Your task to perform on an android device: turn on showing notifications on the lock screen Image 0: 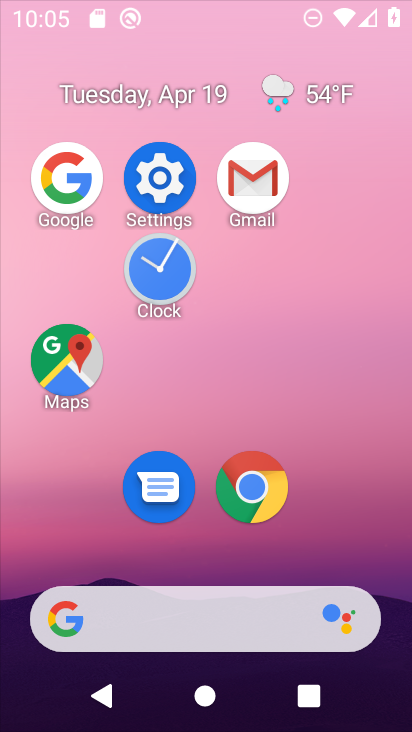
Step 0: click (142, 185)
Your task to perform on an android device: turn on showing notifications on the lock screen Image 1: 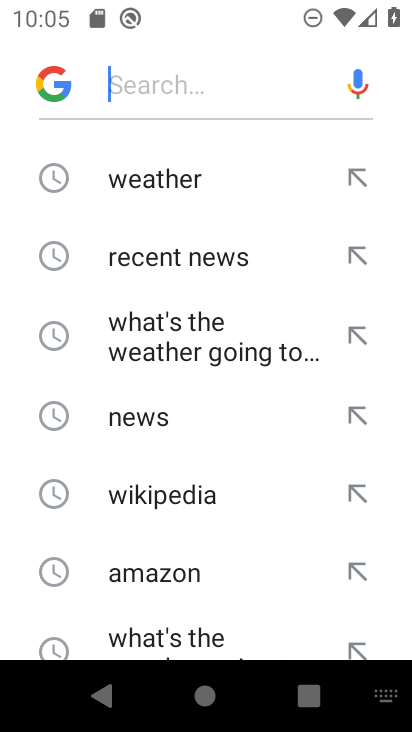
Step 1: press home button
Your task to perform on an android device: turn on showing notifications on the lock screen Image 2: 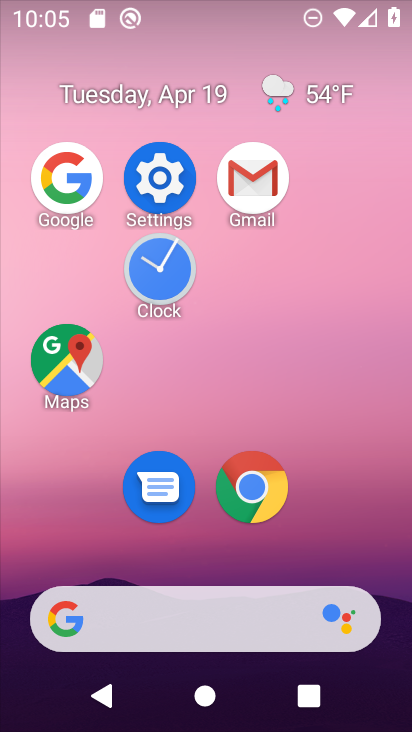
Step 2: click (145, 169)
Your task to perform on an android device: turn on showing notifications on the lock screen Image 3: 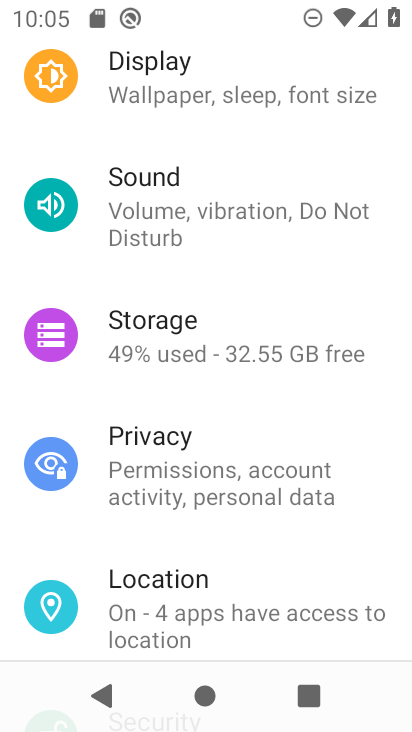
Step 3: drag from (229, 553) to (251, 516)
Your task to perform on an android device: turn on showing notifications on the lock screen Image 4: 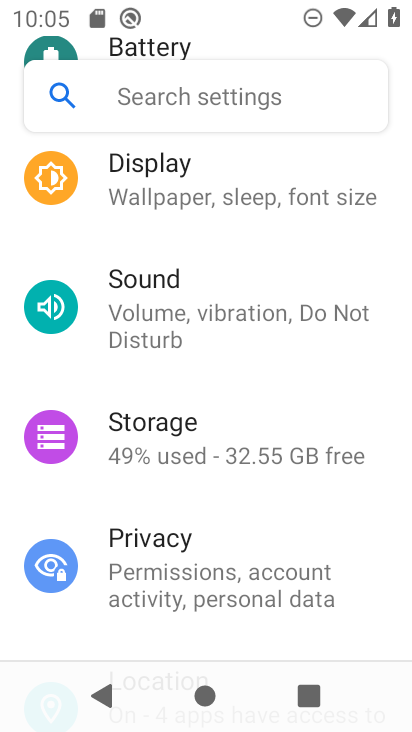
Step 4: drag from (302, 168) to (241, 482)
Your task to perform on an android device: turn on showing notifications on the lock screen Image 5: 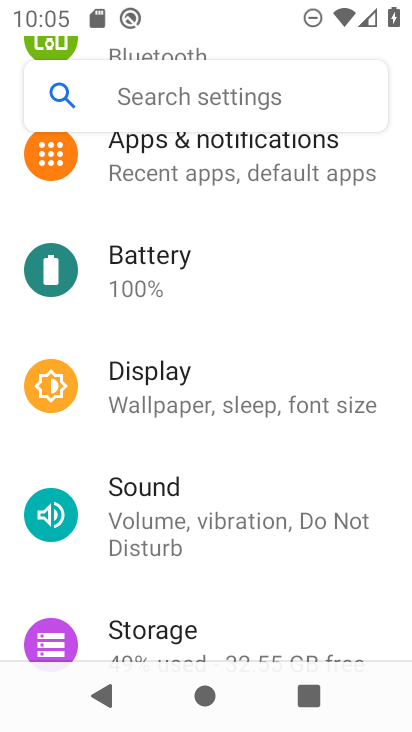
Step 5: click (271, 177)
Your task to perform on an android device: turn on showing notifications on the lock screen Image 6: 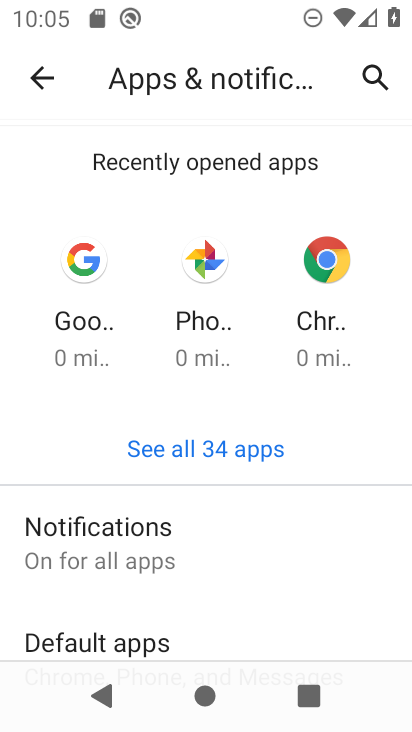
Step 6: click (236, 562)
Your task to perform on an android device: turn on showing notifications on the lock screen Image 7: 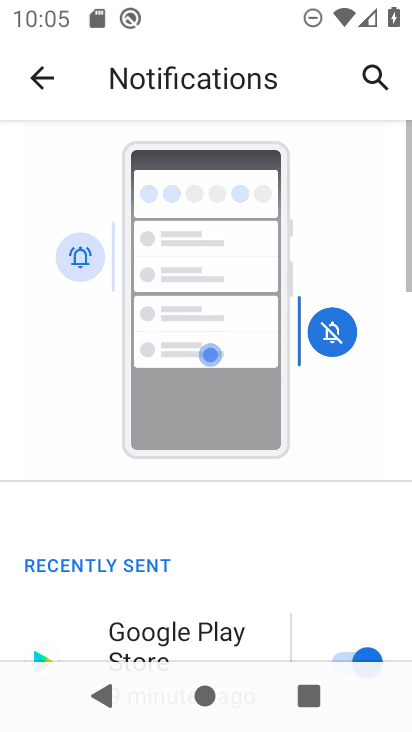
Step 7: drag from (236, 559) to (254, 89)
Your task to perform on an android device: turn on showing notifications on the lock screen Image 8: 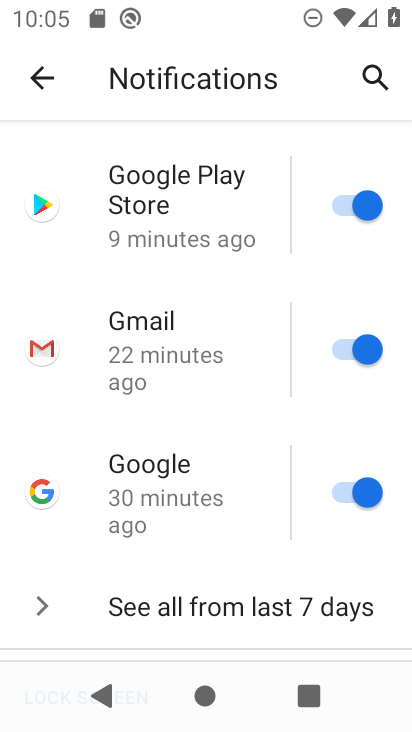
Step 8: drag from (257, 499) to (286, 186)
Your task to perform on an android device: turn on showing notifications on the lock screen Image 9: 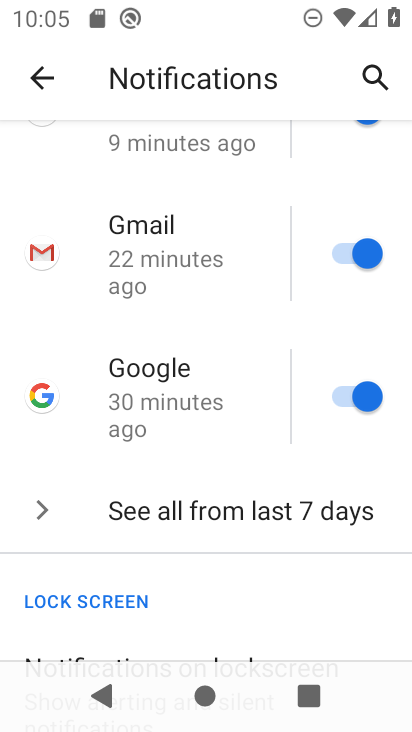
Step 9: drag from (200, 492) to (209, 215)
Your task to perform on an android device: turn on showing notifications on the lock screen Image 10: 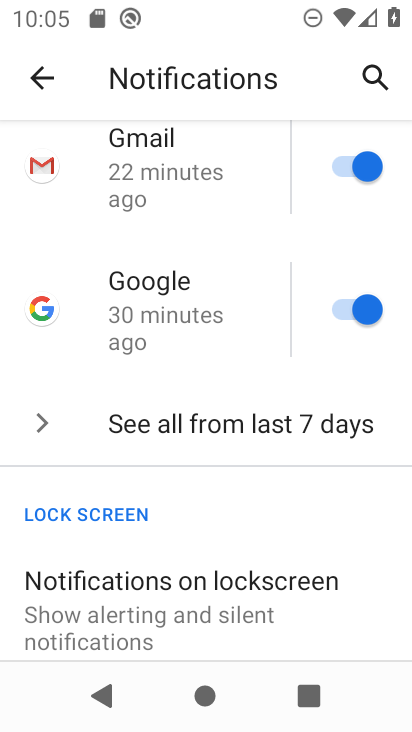
Step 10: click (204, 598)
Your task to perform on an android device: turn on showing notifications on the lock screen Image 11: 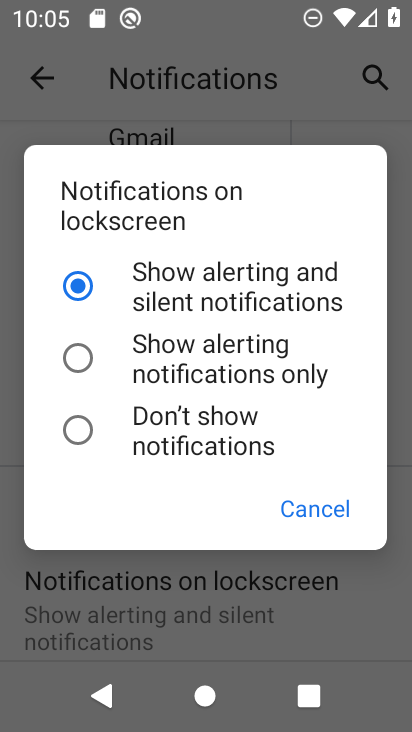
Step 11: task complete